Your task to perform on an android device: Go to ESPN.com Image 0: 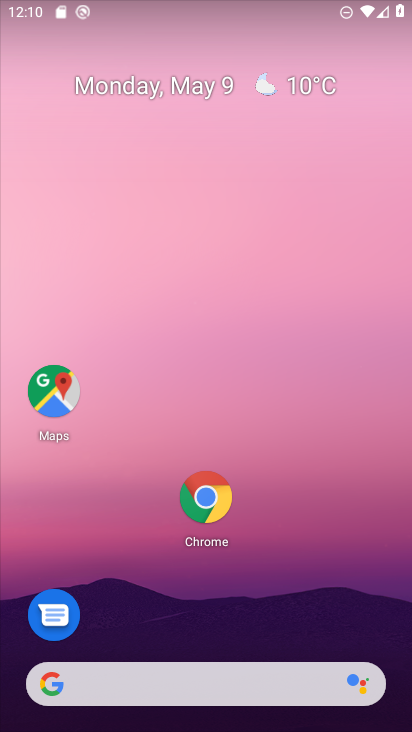
Step 0: click (196, 498)
Your task to perform on an android device: Go to ESPN.com Image 1: 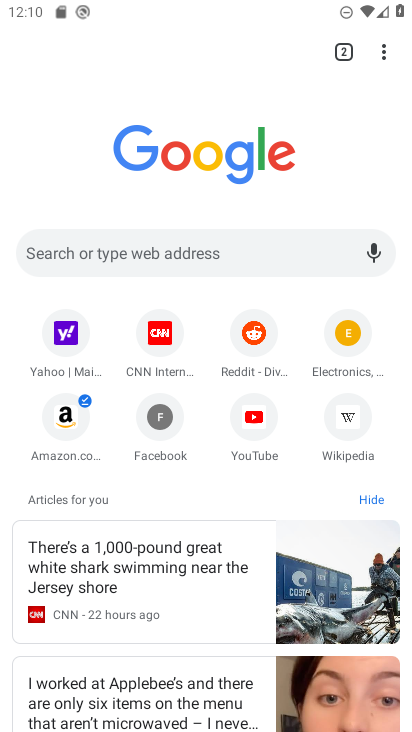
Step 1: click (265, 245)
Your task to perform on an android device: Go to ESPN.com Image 2: 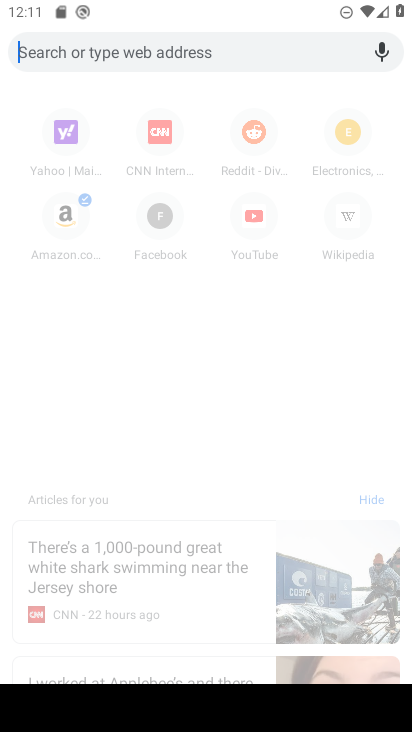
Step 2: type "espn.com"
Your task to perform on an android device: Go to ESPN.com Image 3: 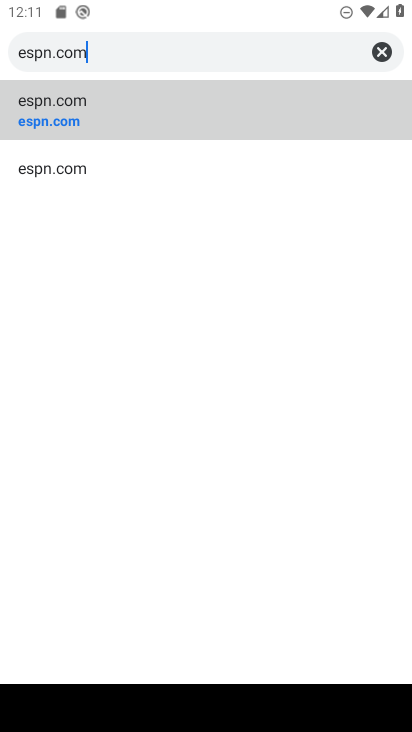
Step 3: click (90, 105)
Your task to perform on an android device: Go to ESPN.com Image 4: 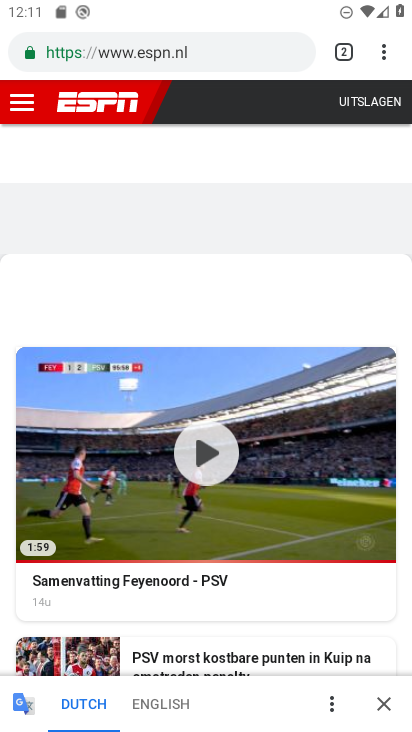
Step 4: task complete